Your task to perform on an android device: remove spam from my inbox in the gmail app Image 0: 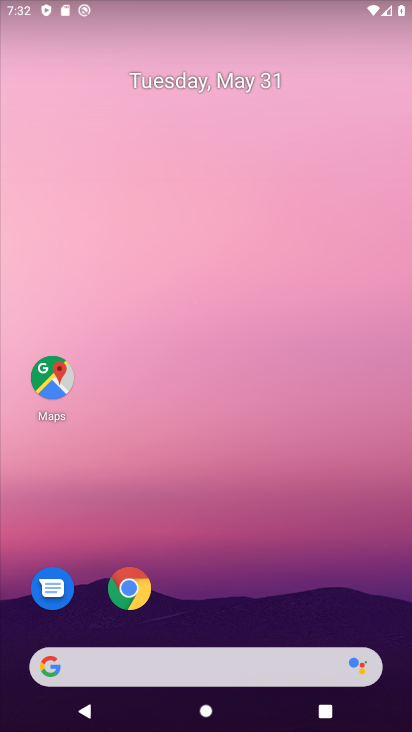
Step 0: drag from (266, 557) to (231, 135)
Your task to perform on an android device: remove spam from my inbox in the gmail app Image 1: 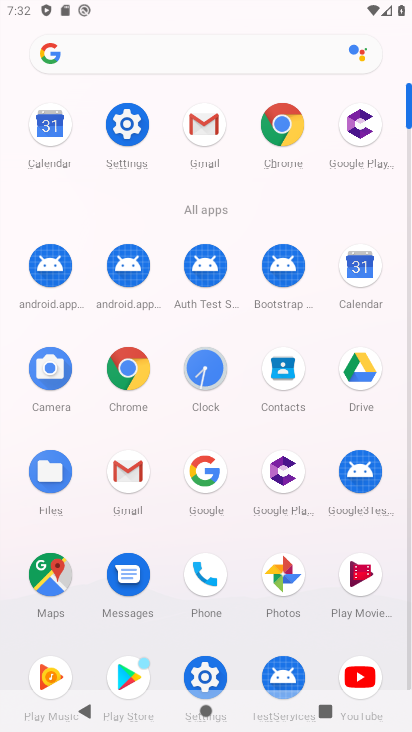
Step 1: click (135, 473)
Your task to perform on an android device: remove spam from my inbox in the gmail app Image 2: 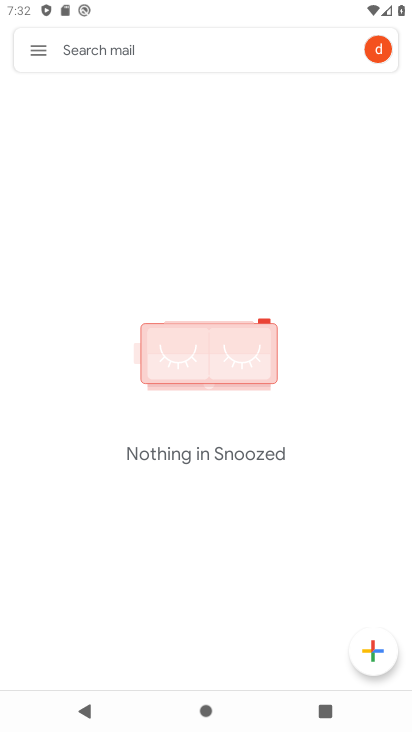
Step 2: click (37, 51)
Your task to perform on an android device: remove spam from my inbox in the gmail app Image 3: 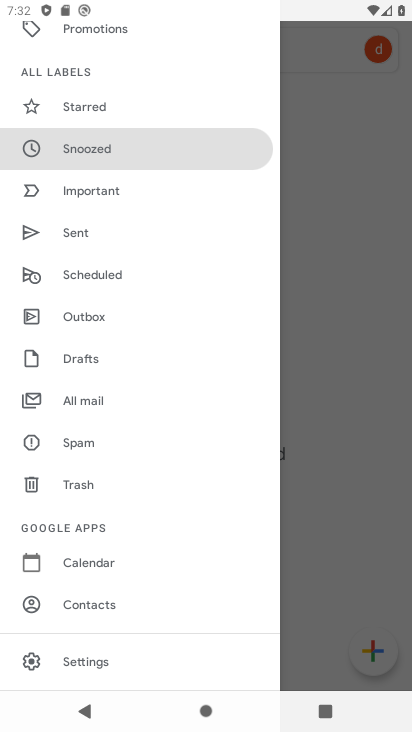
Step 3: click (87, 442)
Your task to perform on an android device: remove spam from my inbox in the gmail app Image 4: 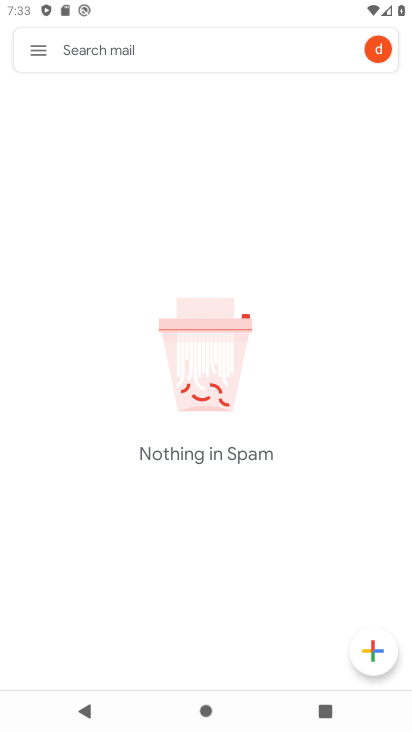
Step 4: task complete